Your task to perform on an android device: Set the phone to "Do not disturb". Image 0: 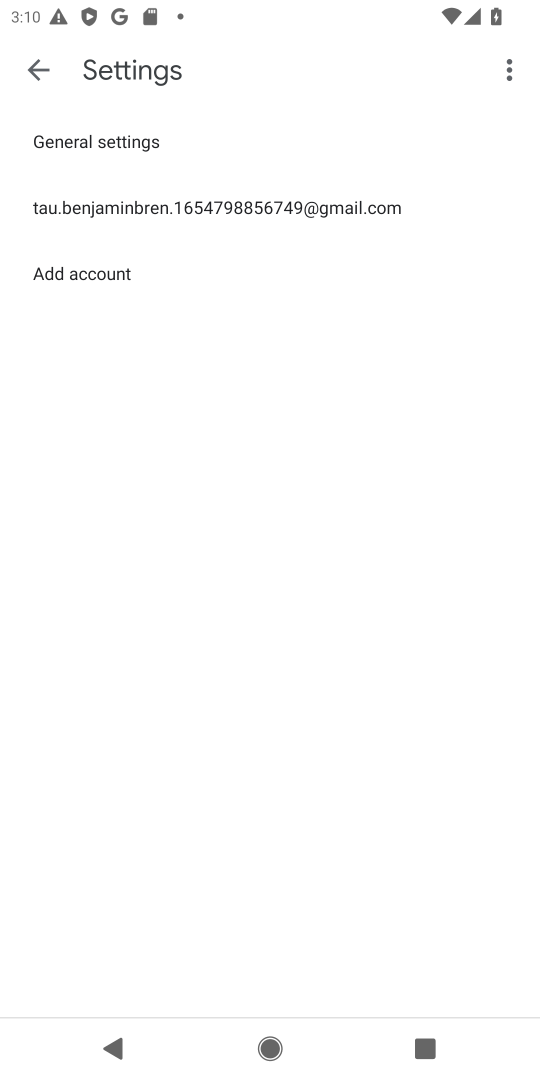
Step 0: press home button
Your task to perform on an android device: Set the phone to "Do not disturb". Image 1: 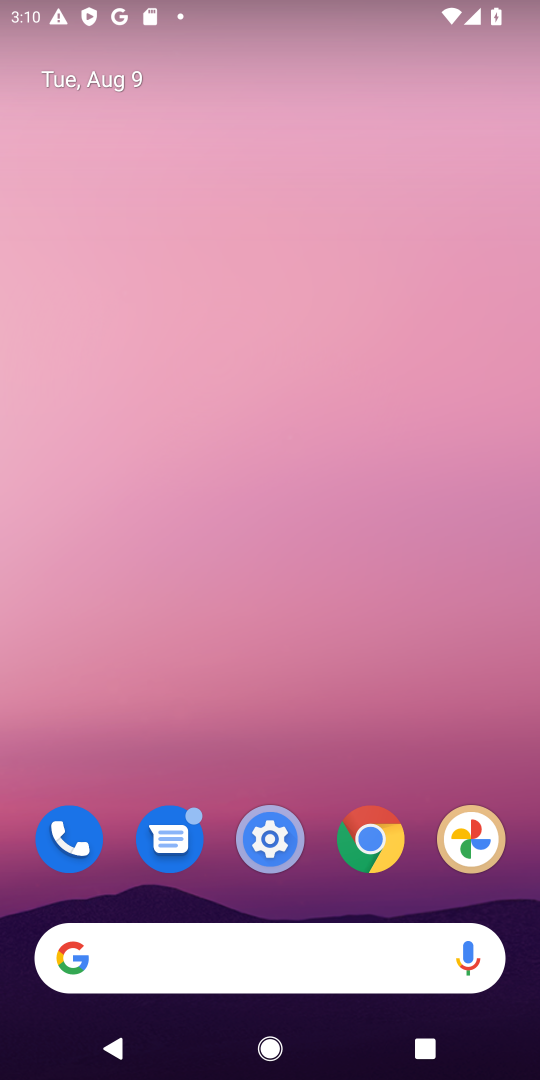
Step 1: drag from (247, 10) to (251, 367)
Your task to perform on an android device: Set the phone to "Do not disturb". Image 2: 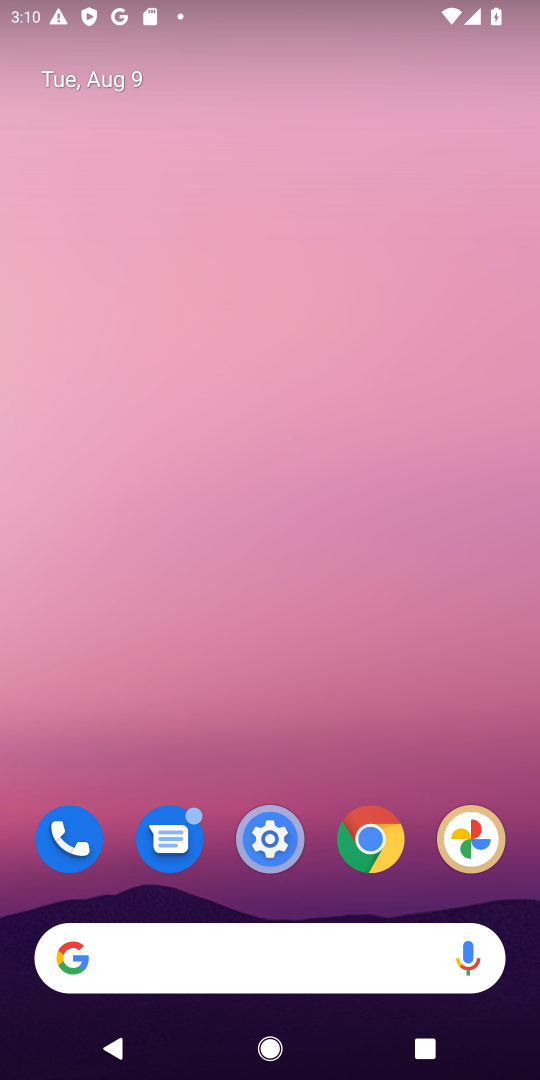
Step 2: drag from (266, 6) to (199, 737)
Your task to perform on an android device: Set the phone to "Do not disturb". Image 3: 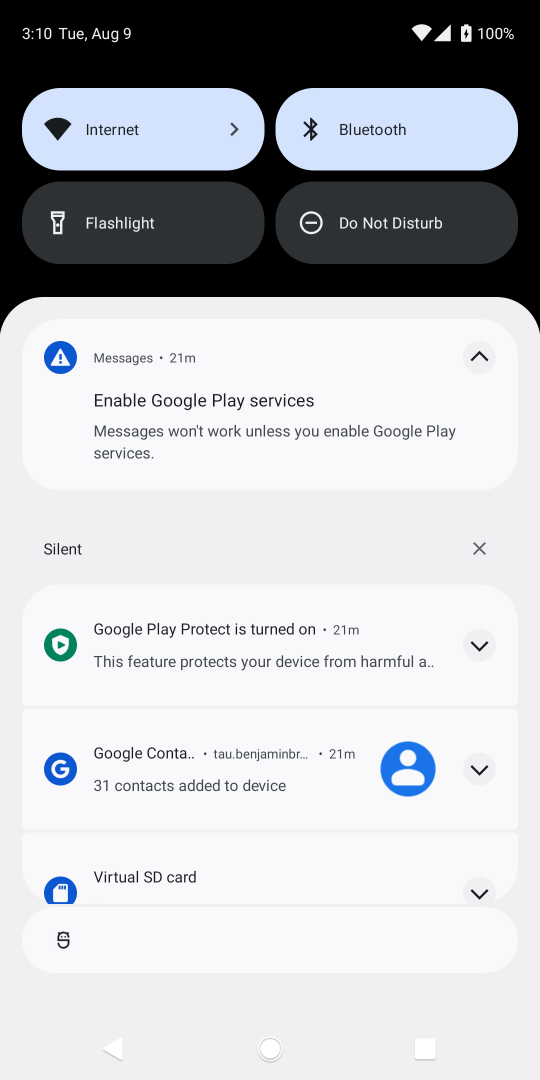
Step 3: click (405, 225)
Your task to perform on an android device: Set the phone to "Do not disturb". Image 4: 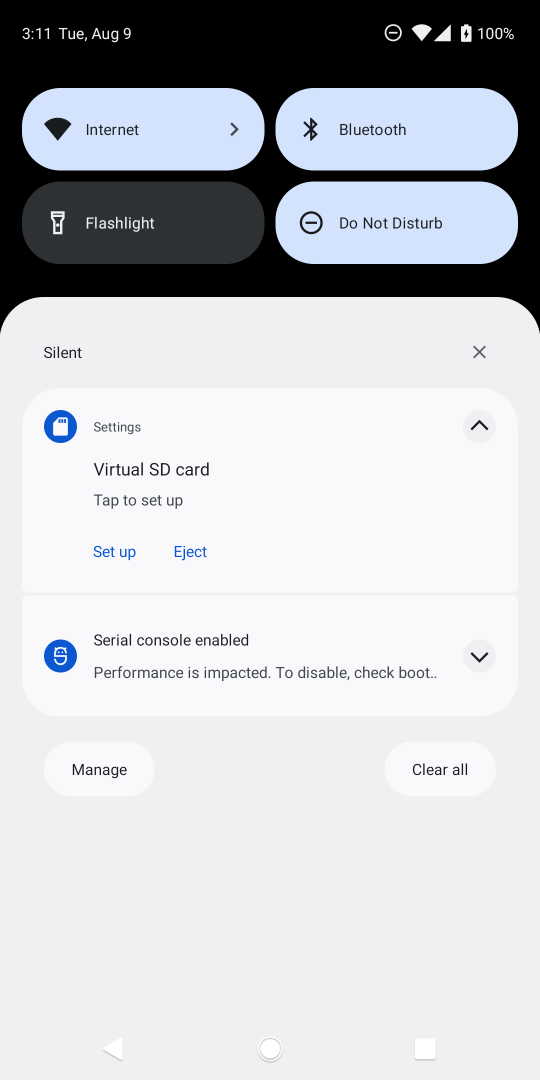
Step 4: task complete